Your task to perform on an android device: Go to Maps Image 0: 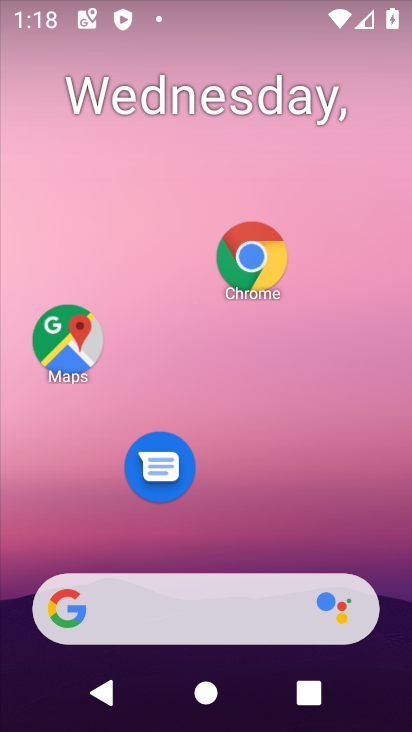
Step 0: click (63, 330)
Your task to perform on an android device: Go to Maps Image 1: 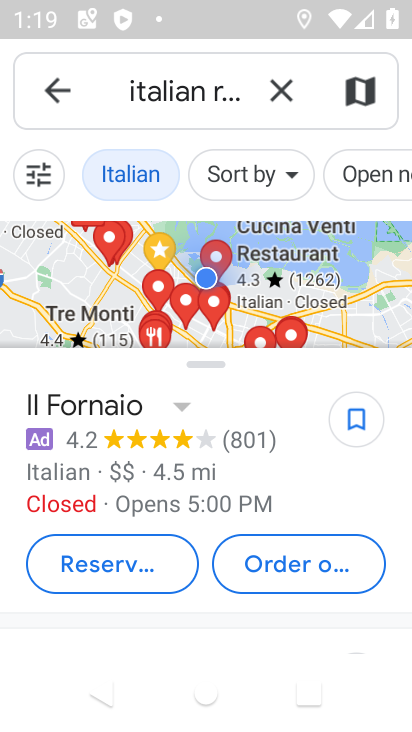
Step 1: task complete